Your task to perform on an android device: turn on javascript in the chrome app Image 0: 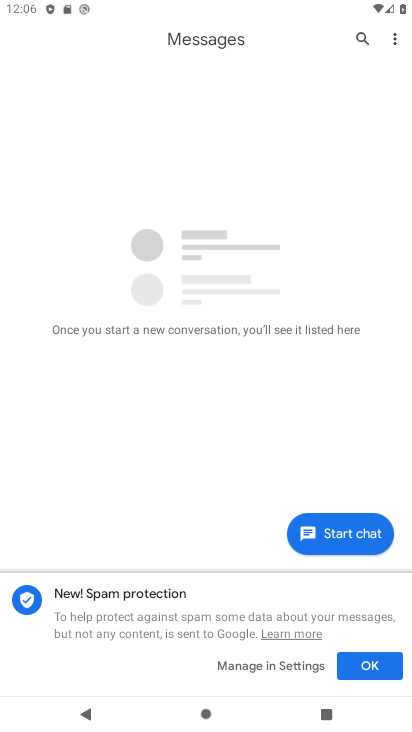
Step 0: press home button
Your task to perform on an android device: turn on javascript in the chrome app Image 1: 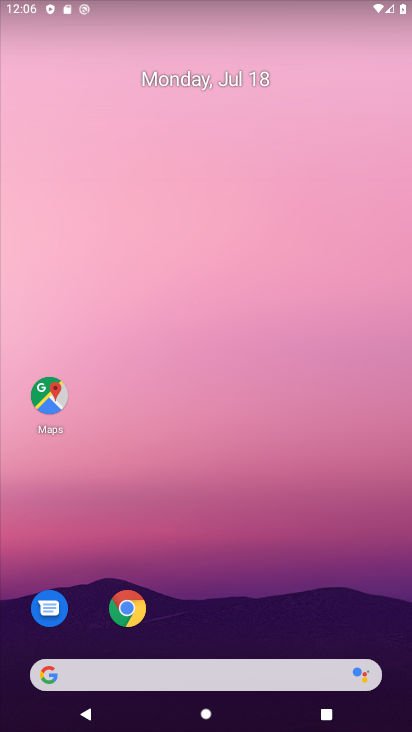
Step 1: click (131, 615)
Your task to perform on an android device: turn on javascript in the chrome app Image 2: 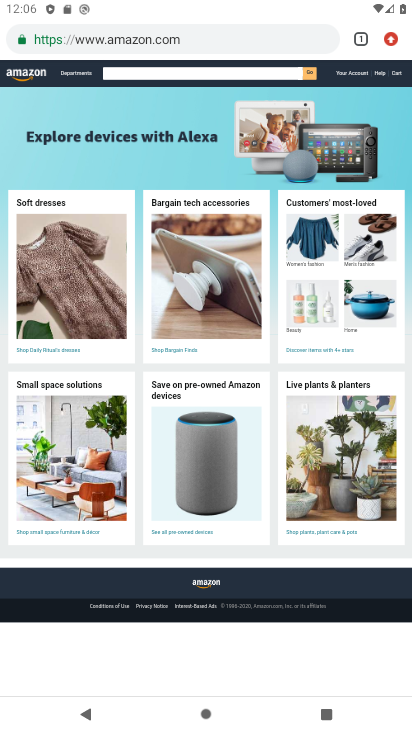
Step 2: click (389, 41)
Your task to perform on an android device: turn on javascript in the chrome app Image 3: 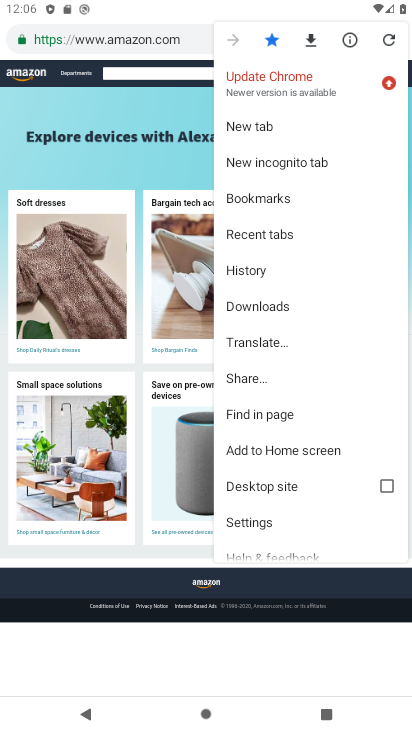
Step 3: click (272, 521)
Your task to perform on an android device: turn on javascript in the chrome app Image 4: 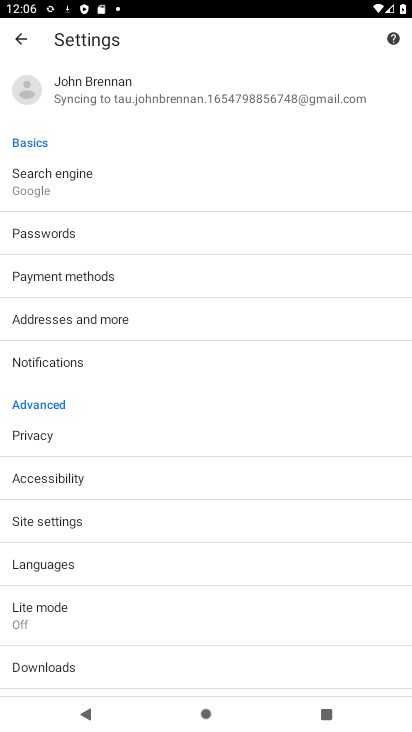
Step 4: click (143, 529)
Your task to perform on an android device: turn on javascript in the chrome app Image 5: 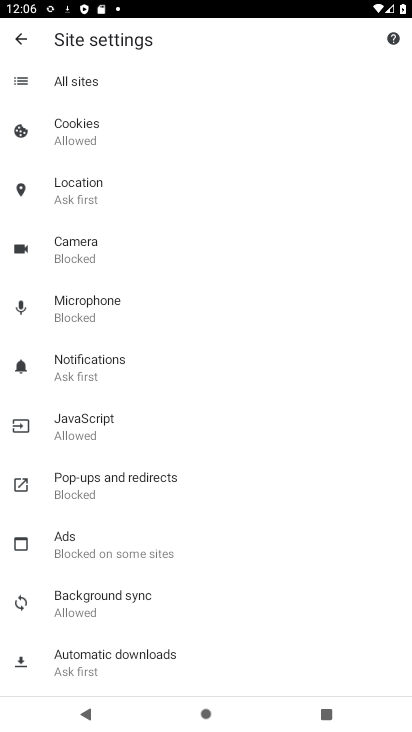
Step 5: click (146, 434)
Your task to perform on an android device: turn on javascript in the chrome app Image 6: 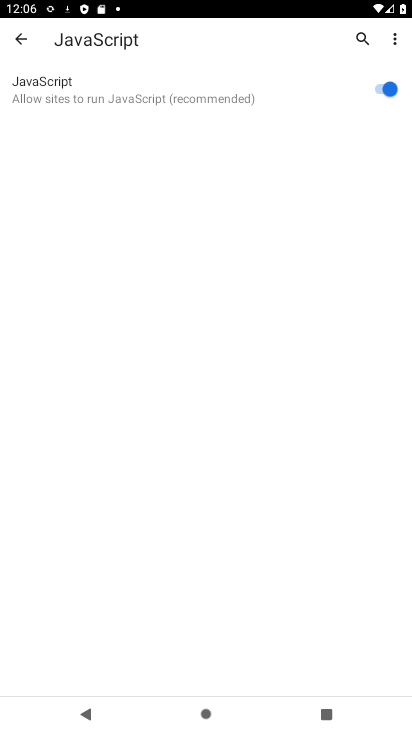
Step 6: task complete